Your task to perform on an android device: toggle airplane mode Image 0: 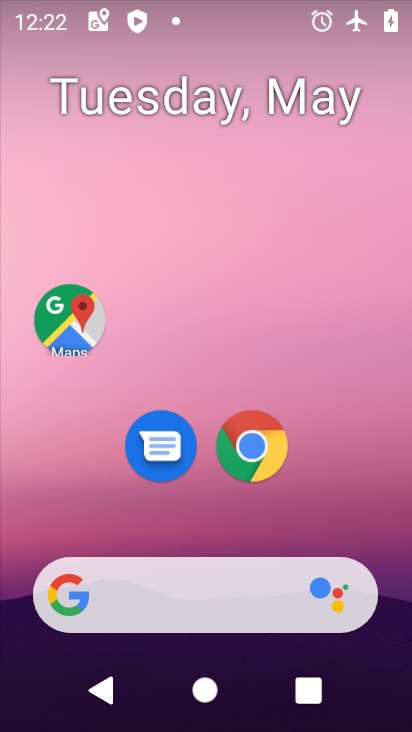
Step 0: drag from (308, 460) to (295, 181)
Your task to perform on an android device: toggle airplane mode Image 1: 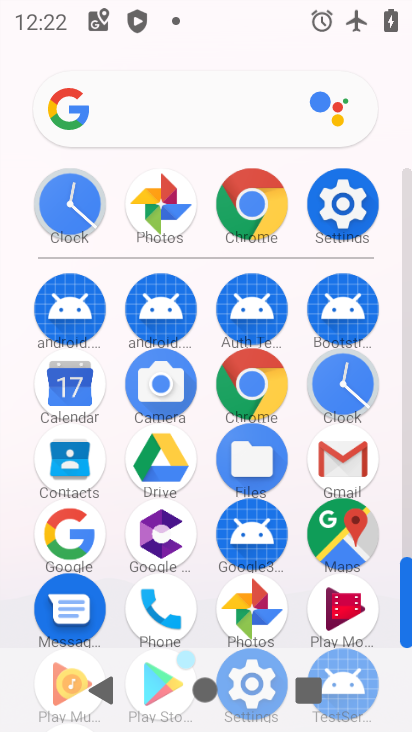
Step 1: click (336, 191)
Your task to perform on an android device: toggle airplane mode Image 2: 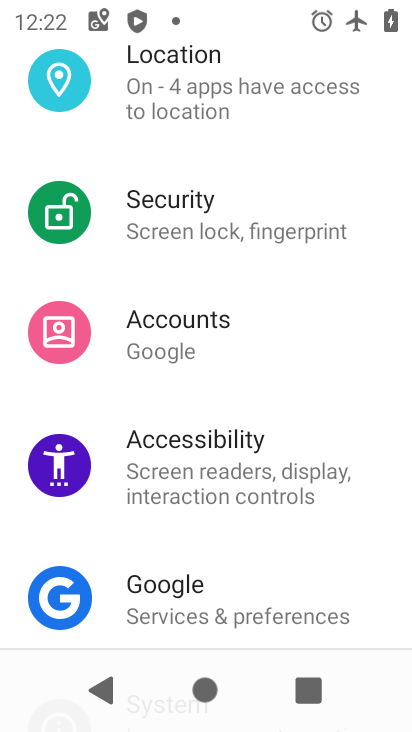
Step 2: drag from (234, 144) to (198, 570)
Your task to perform on an android device: toggle airplane mode Image 3: 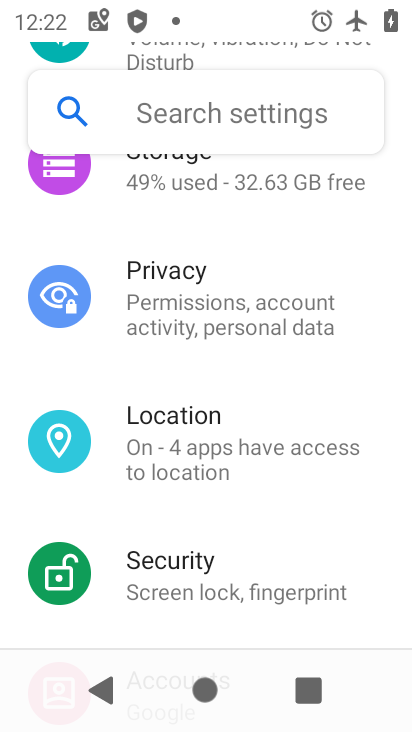
Step 3: drag from (216, 251) to (194, 597)
Your task to perform on an android device: toggle airplane mode Image 4: 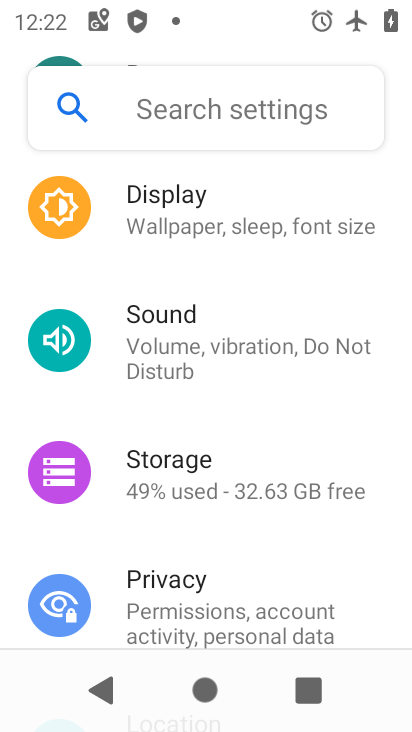
Step 4: drag from (193, 265) to (203, 623)
Your task to perform on an android device: toggle airplane mode Image 5: 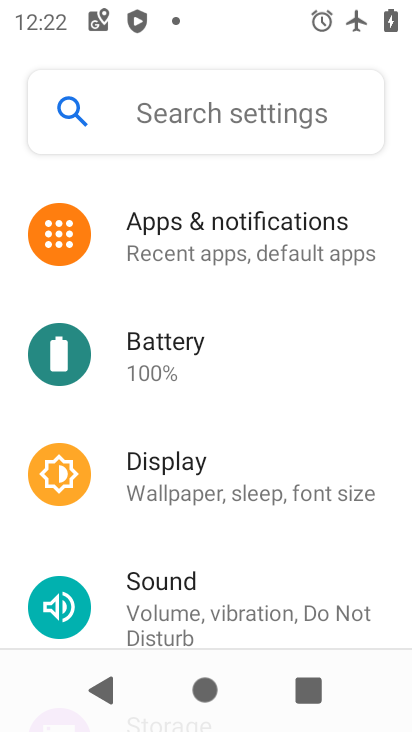
Step 5: drag from (201, 217) to (164, 603)
Your task to perform on an android device: toggle airplane mode Image 6: 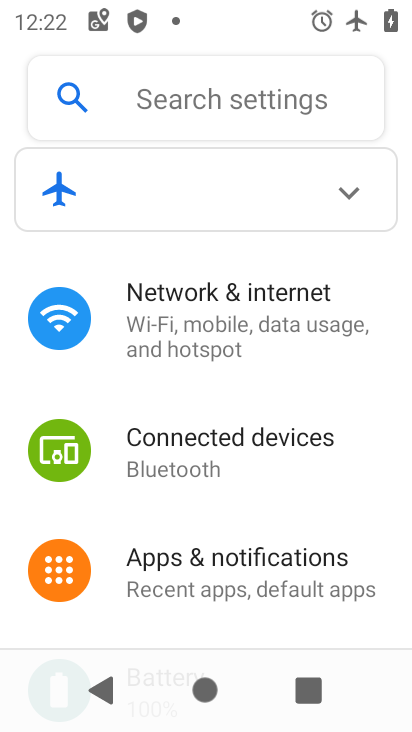
Step 6: click (176, 313)
Your task to perform on an android device: toggle airplane mode Image 7: 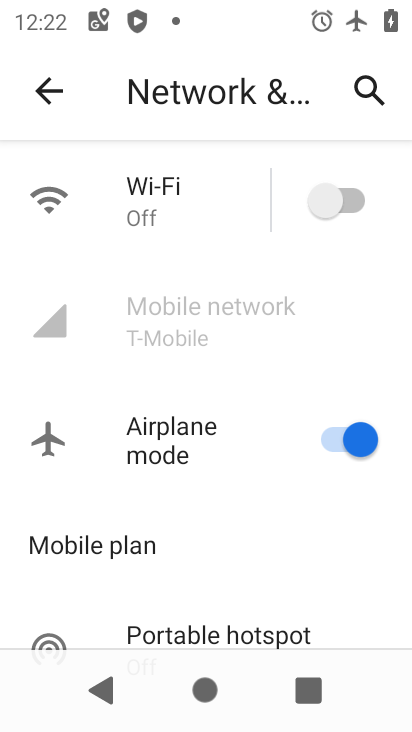
Step 7: click (346, 446)
Your task to perform on an android device: toggle airplane mode Image 8: 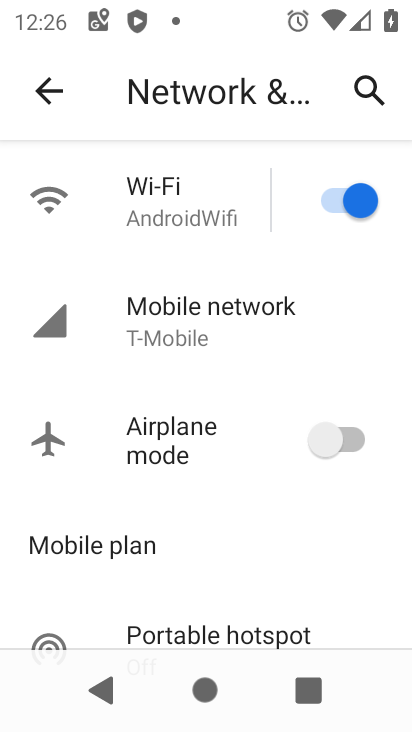
Step 8: task complete